Your task to perform on an android device: change keyboard looks Image 0: 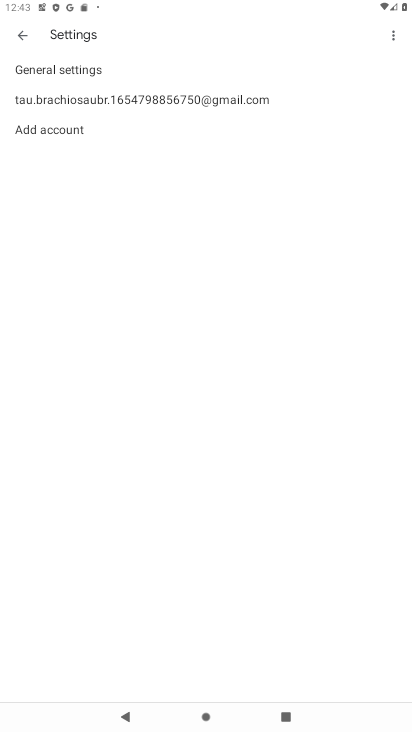
Step 0: press home button
Your task to perform on an android device: change keyboard looks Image 1: 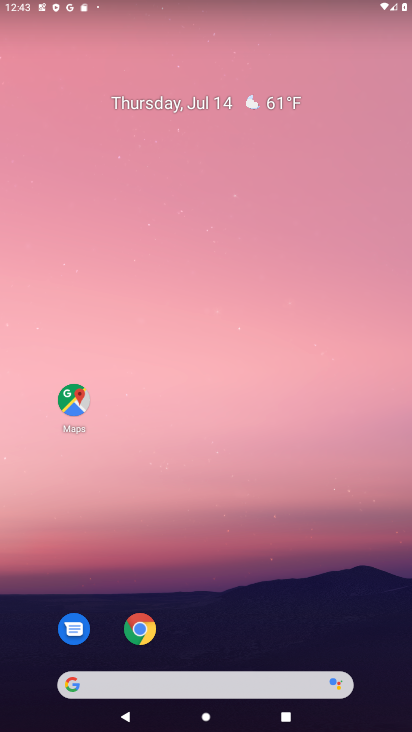
Step 1: drag from (265, 590) to (243, 41)
Your task to perform on an android device: change keyboard looks Image 2: 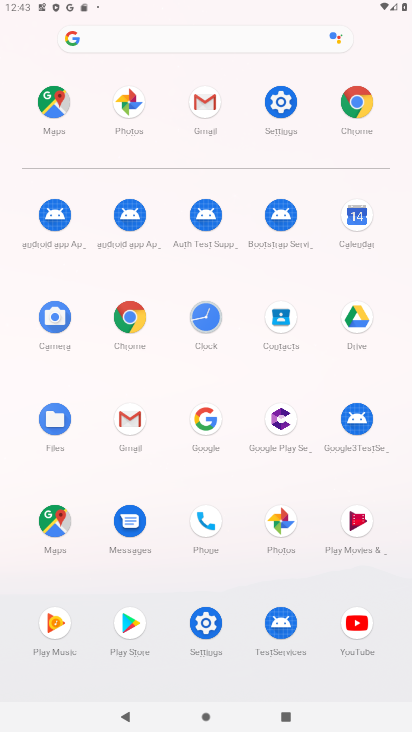
Step 2: click (270, 99)
Your task to perform on an android device: change keyboard looks Image 3: 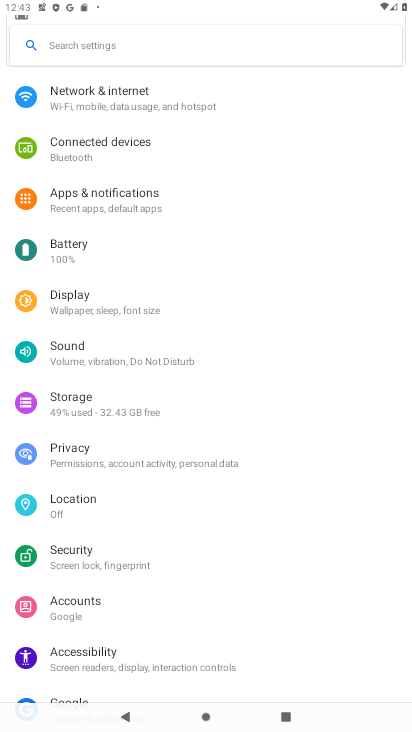
Step 3: drag from (174, 648) to (184, 250)
Your task to perform on an android device: change keyboard looks Image 4: 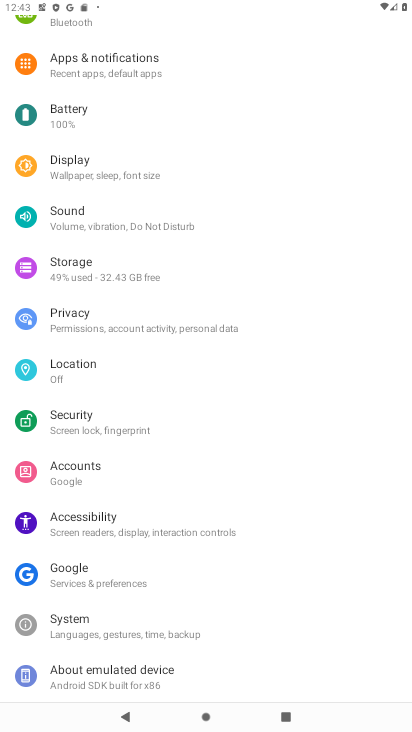
Step 4: click (104, 647)
Your task to perform on an android device: change keyboard looks Image 5: 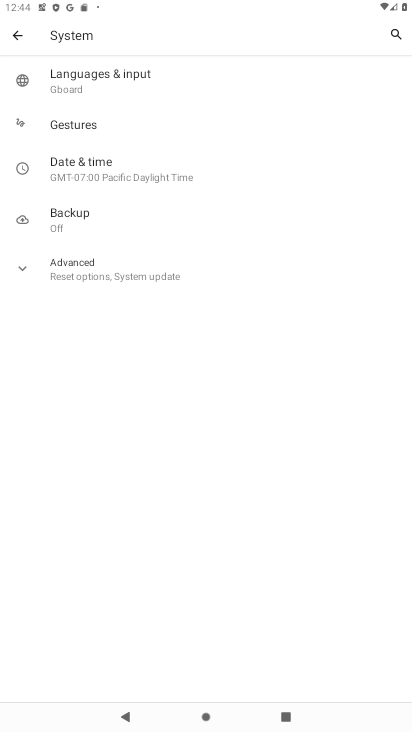
Step 5: click (127, 77)
Your task to perform on an android device: change keyboard looks Image 6: 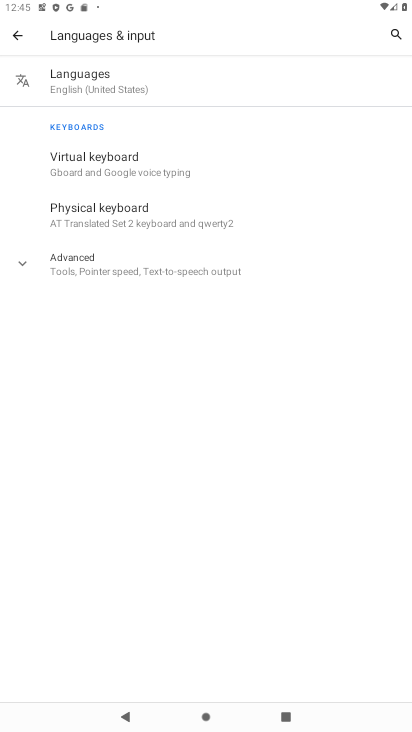
Step 6: click (126, 161)
Your task to perform on an android device: change keyboard looks Image 7: 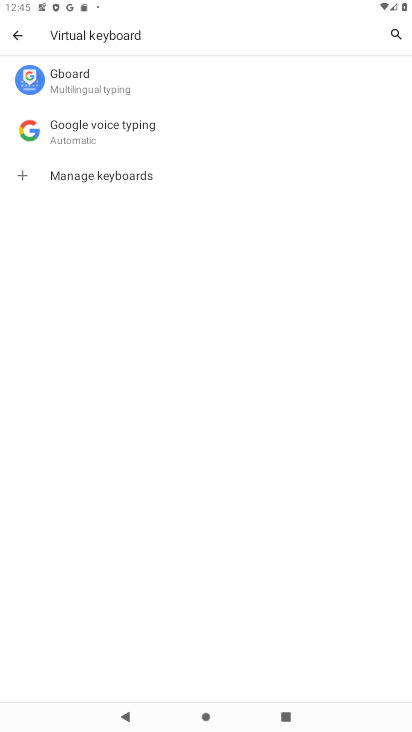
Step 7: click (131, 86)
Your task to perform on an android device: change keyboard looks Image 8: 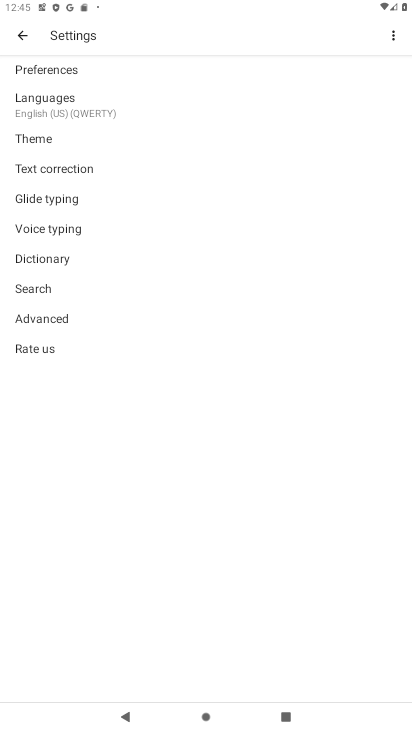
Step 8: click (39, 143)
Your task to perform on an android device: change keyboard looks Image 9: 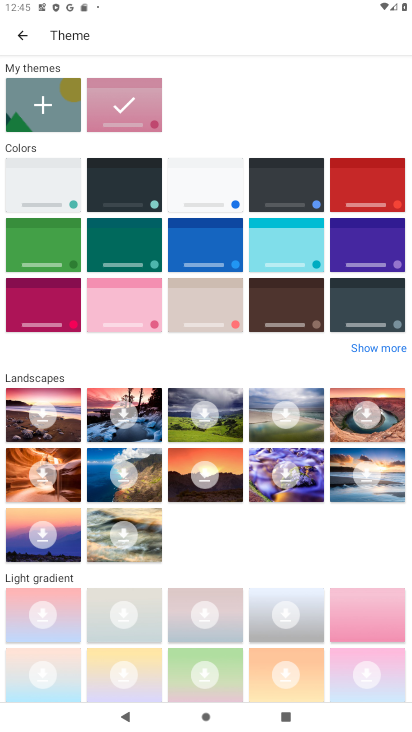
Step 9: click (135, 662)
Your task to perform on an android device: change keyboard looks Image 10: 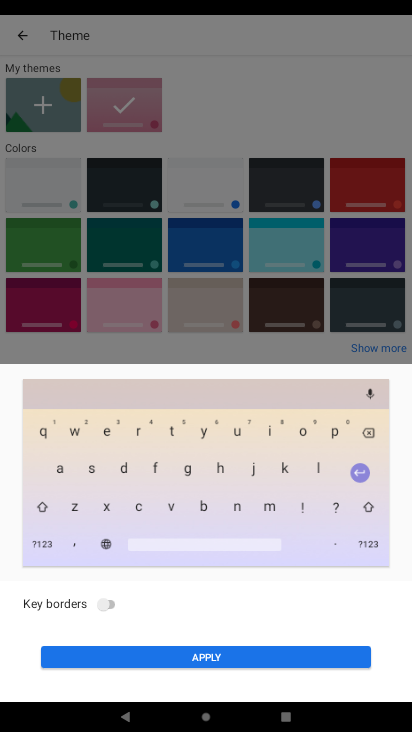
Step 10: click (207, 654)
Your task to perform on an android device: change keyboard looks Image 11: 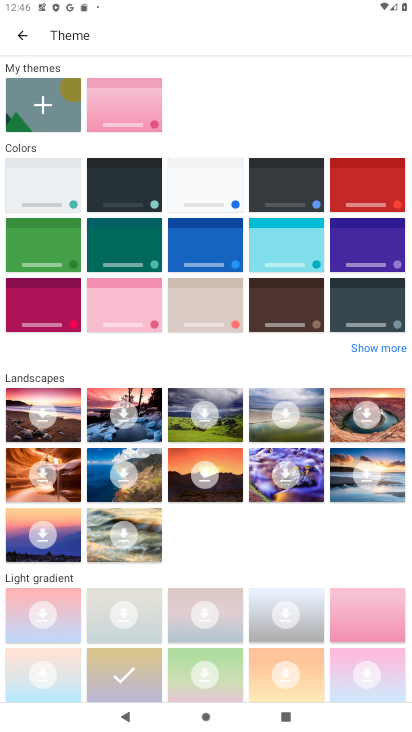
Step 11: task complete